Your task to perform on an android device: What is the recent news? Image 0: 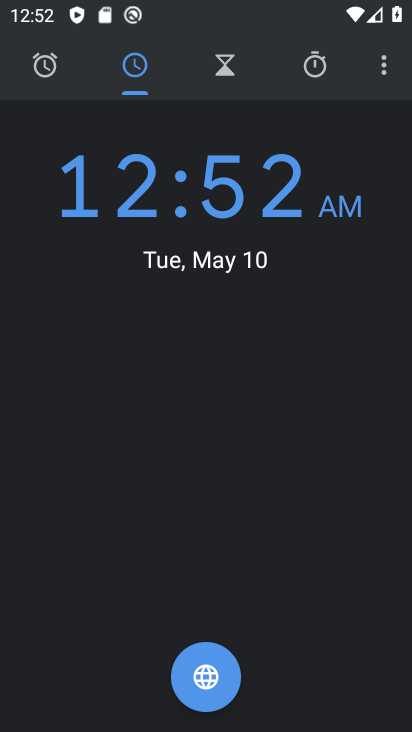
Step 0: press home button
Your task to perform on an android device: What is the recent news? Image 1: 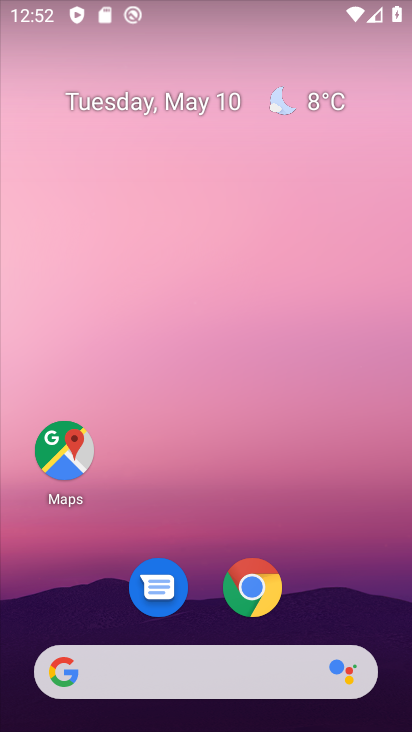
Step 1: task complete